Your task to perform on an android device: search for starred emails in the gmail app Image 0: 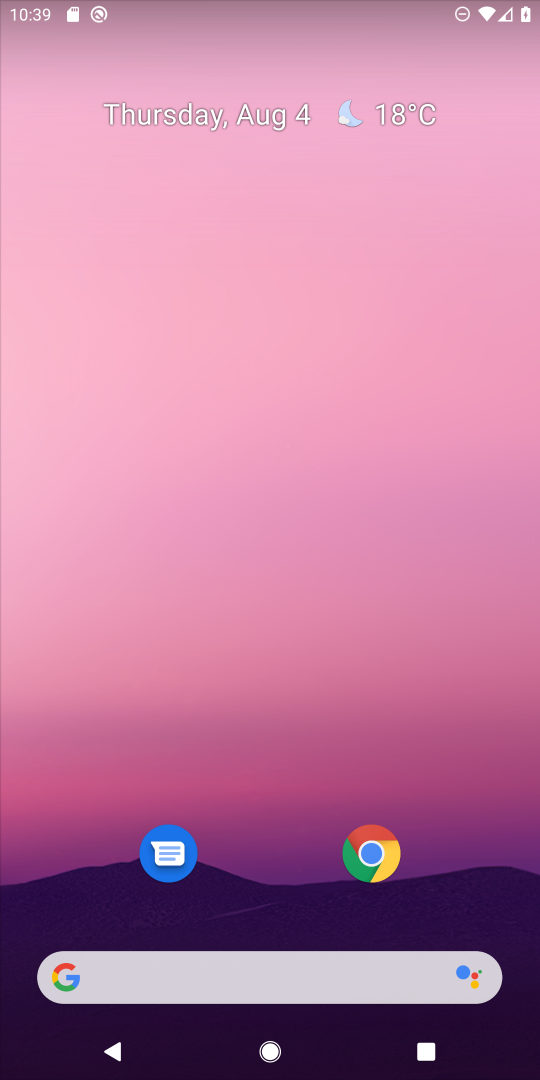
Step 0: drag from (266, 934) to (247, 80)
Your task to perform on an android device: search for starred emails in the gmail app Image 1: 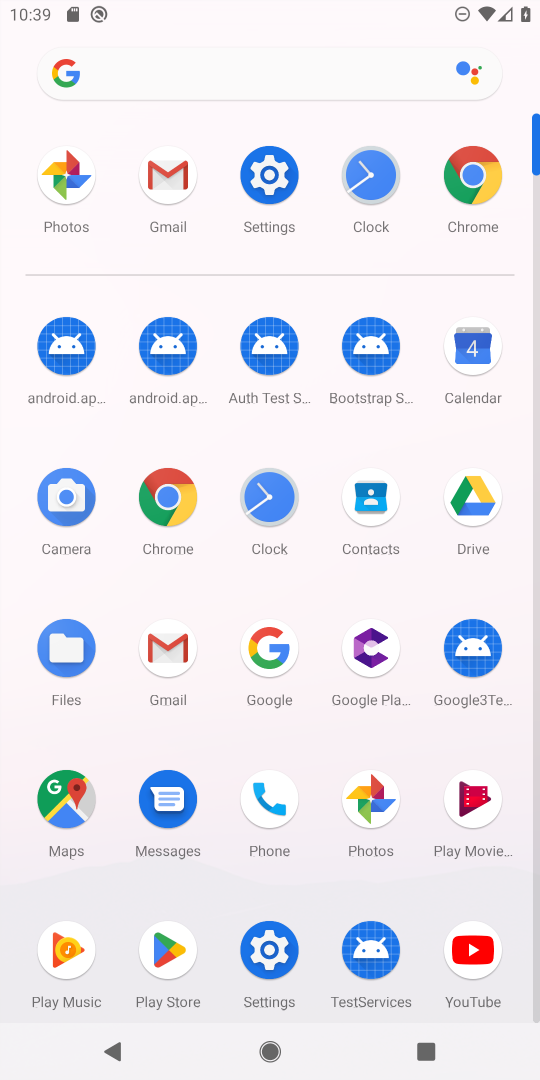
Step 1: click (171, 656)
Your task to perform on an android device: search for starred emails in the gmail app Image 2: 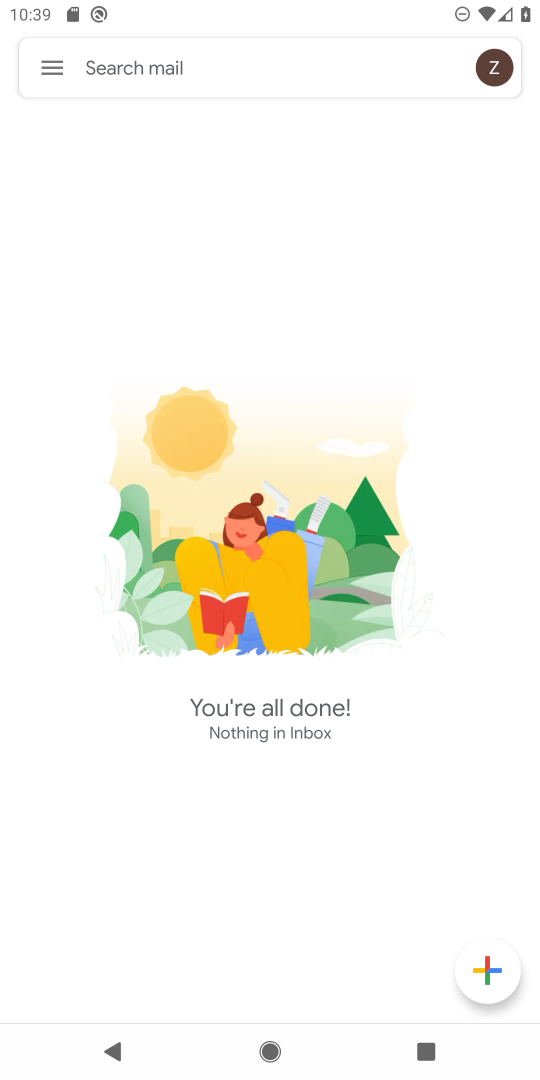
Step 2: drag from (50, 81) to (105, 81)
Your task to perform on an android device: search for starred emails in the gmail app Image 3: 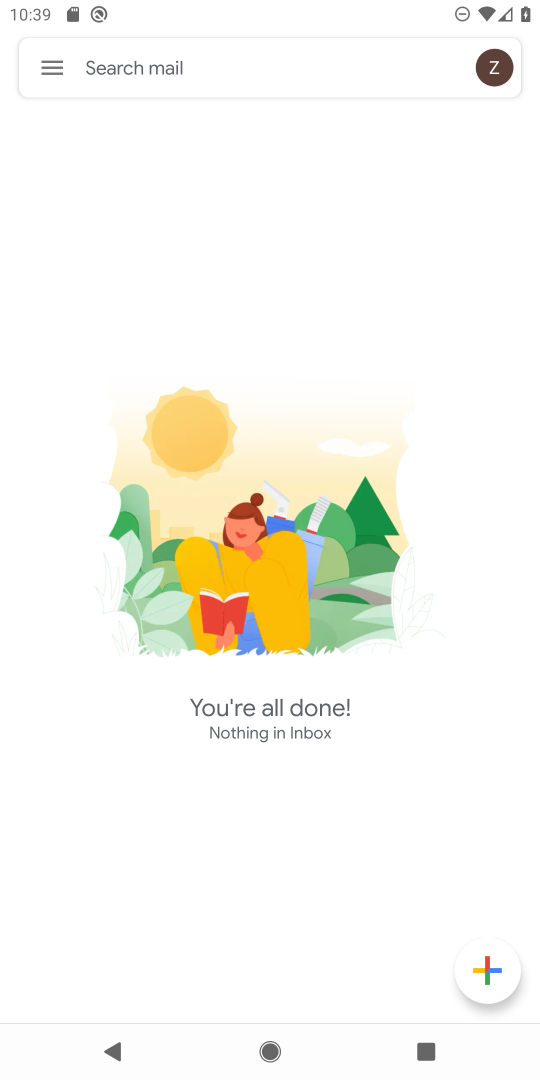
Step 3: click (45, 69)
Your task to perform on an android device: search for starred emails in the gmail app Image 4: 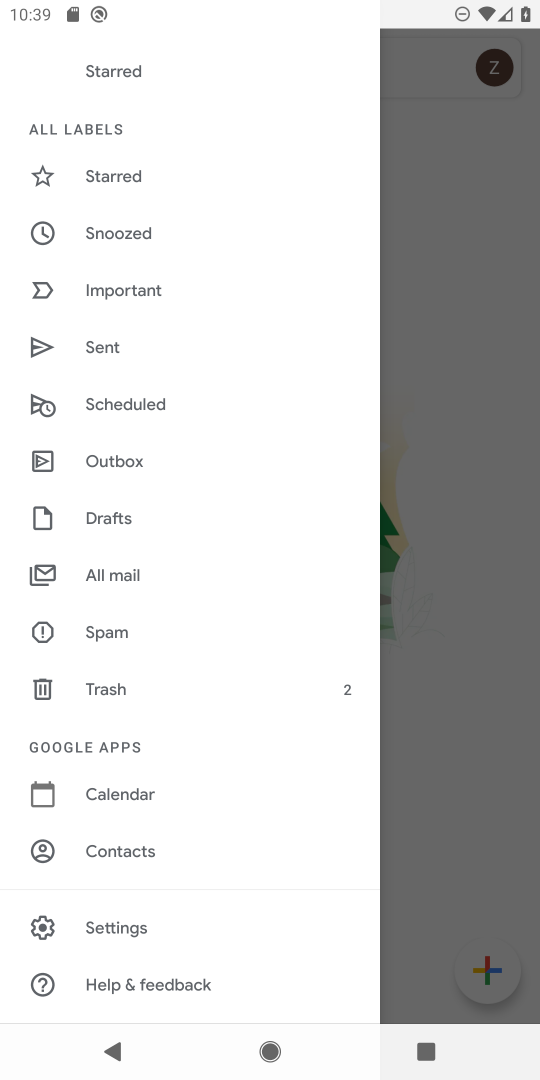
Step 4: click (110, 167)
Your task to perform on an android device: search for starred emails in the gmail app Image 5: 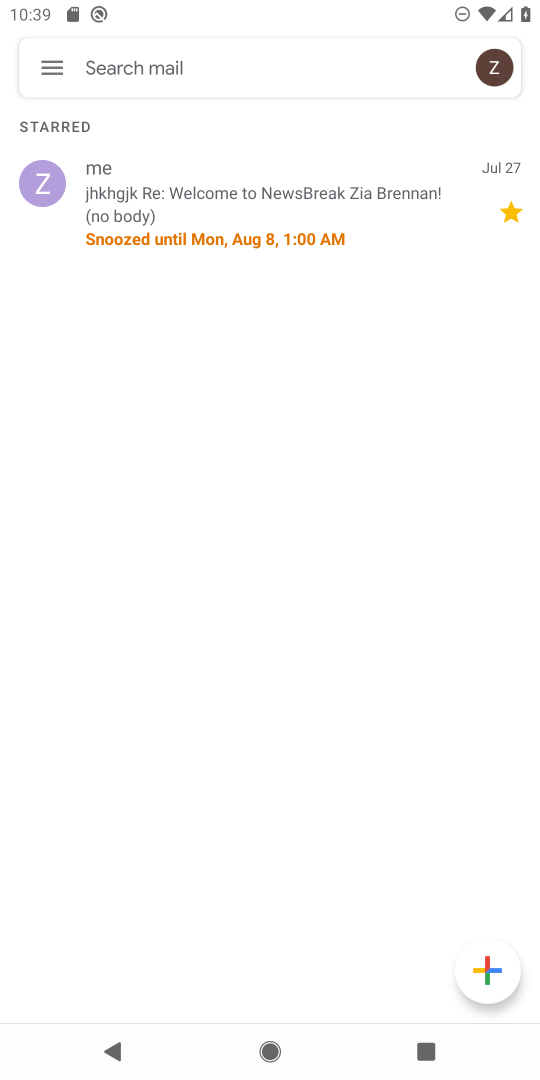
Step 5: task complete